Your task to perform on an android device: Find coffee shops on Maps Image 0: 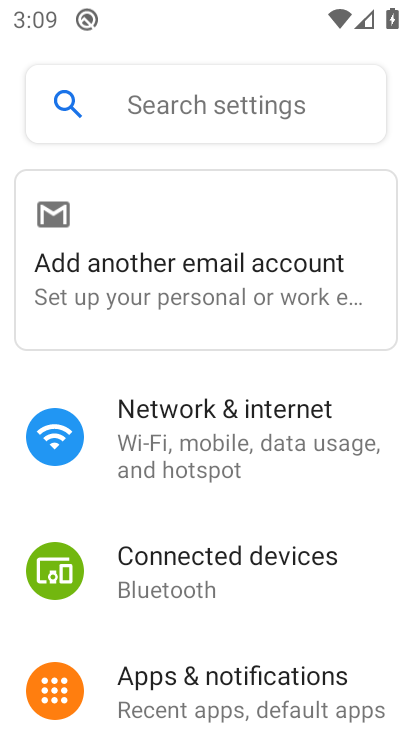
Step 0: press home button
Your task to perform on an android device: Find coffee shops on Maps Image 1: 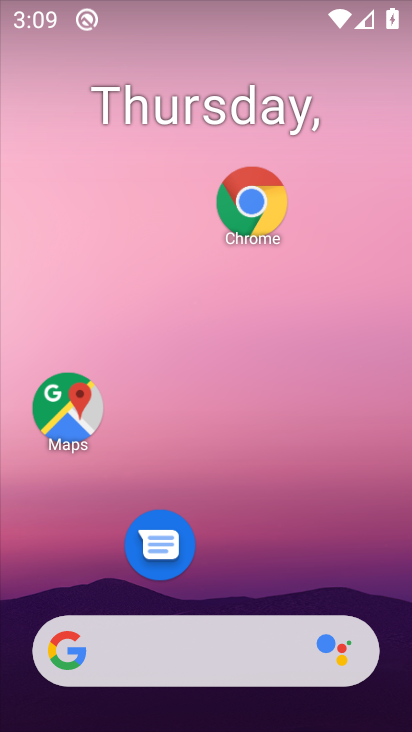
Step 1: drag from (220, 592) to (219, 269)
Your task to perform on an android device: Find coffee shops on Maps Image 2: 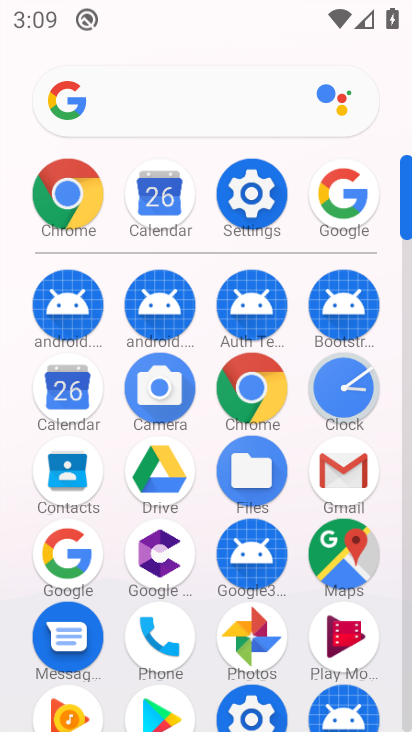
Step 2: drag from (119, 671) to (132, 277)
Your task to perform on an android device: Find coffee shops on Maps Image 3: 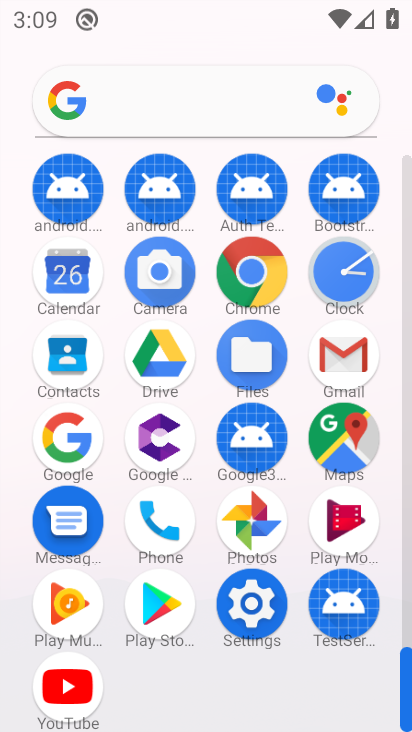
Step 3: click (364, 457)
Your task to perform on an android device: Find coffee shops on Maps Image 4: 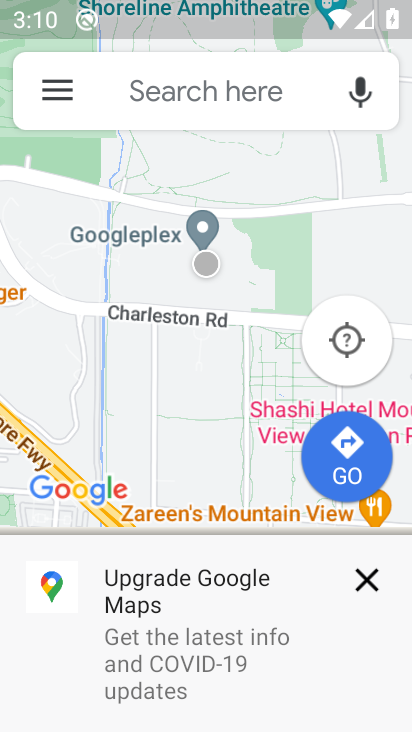
Step 4: click (177, 96)
Your task to perform on an android device: Find coffee shops on Maps Image 5: 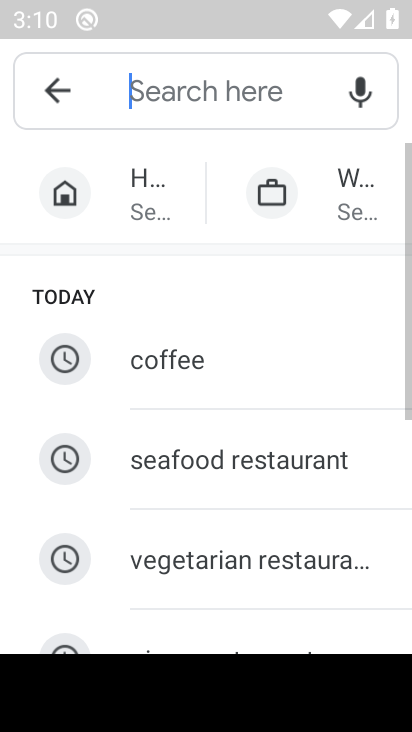
Step 5: click (182, 357)
Your task to perform on an android device: Find coffee shops on Maps Image 6: 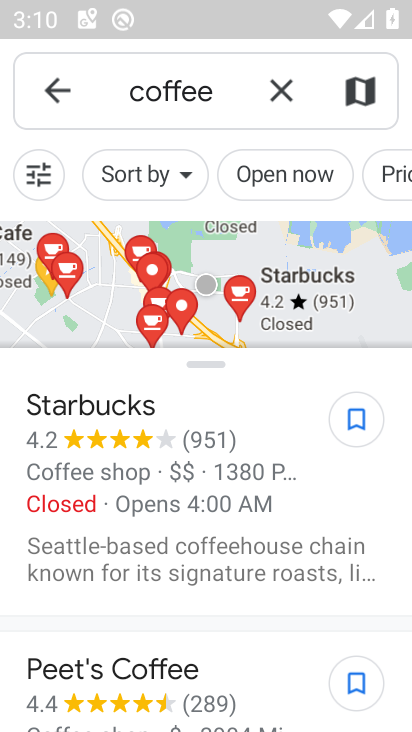
Step 6: task complete